Your task to perform on an android device: Open Google Maps Image 0: 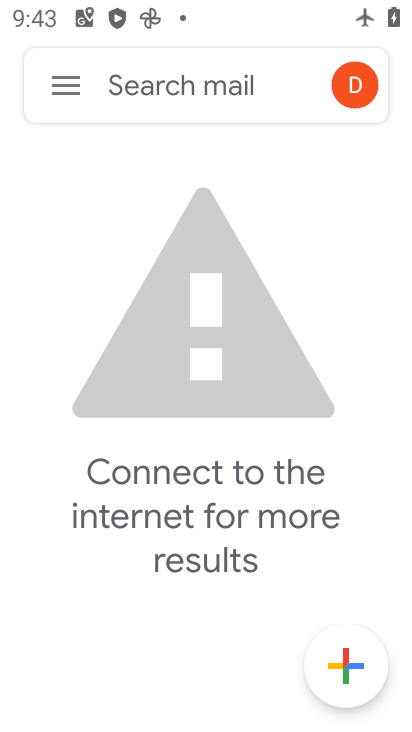
Step 0: press home button
Your task to perform on an android device: Open Google Maps Image 1: 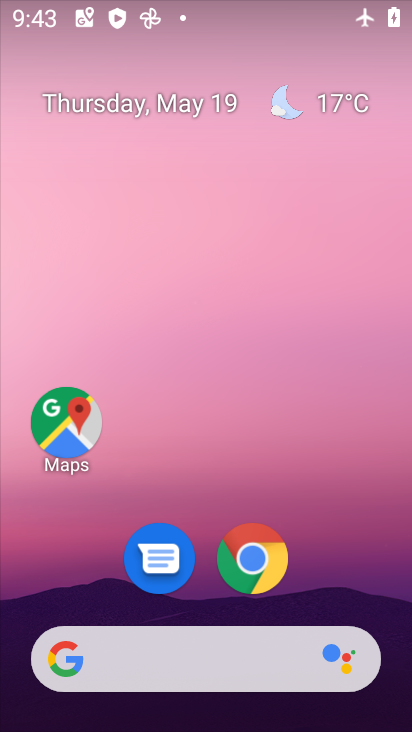
Step 1: drag from (217, 725) to (207, 111)
Your task to perform on an android device: Open Google Maps Image 2: 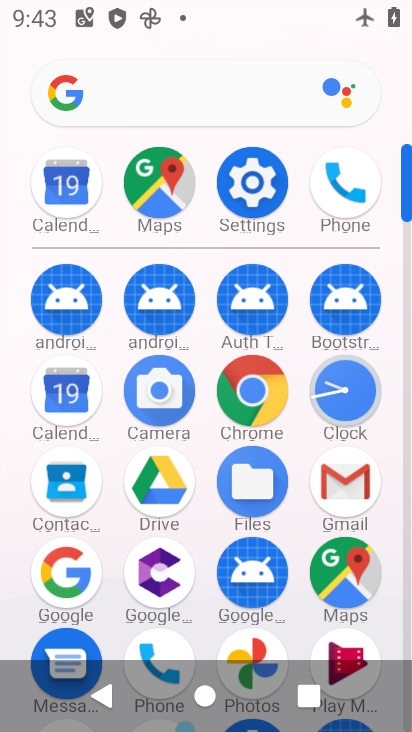
Step 2: click (356, 575)
Your task to perform on an android device: Open Google Maps Image 3: 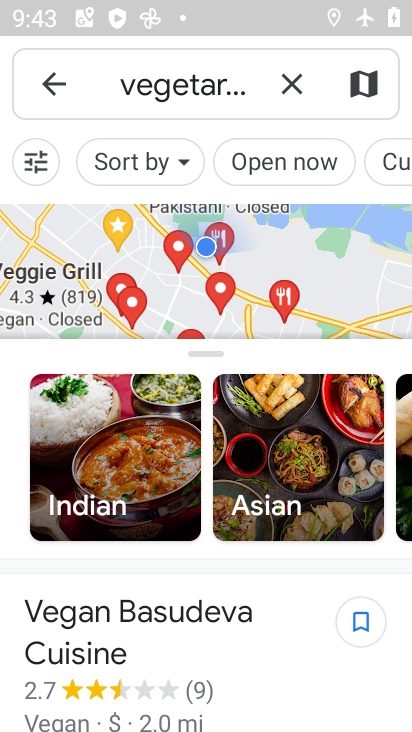
Step 3: task complete